Your task to perform on an android device: Go to Wikipedia Image 0: 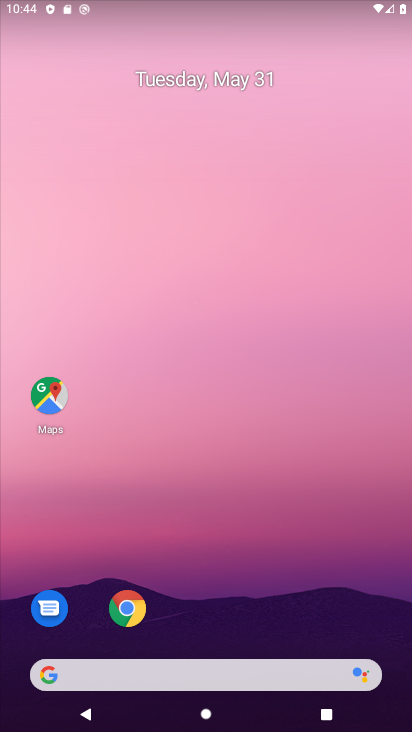
Step 0: drag from (289, 576) to (328, 65)
Your task to perform on an android device: Go to Wikipedia Image 1: 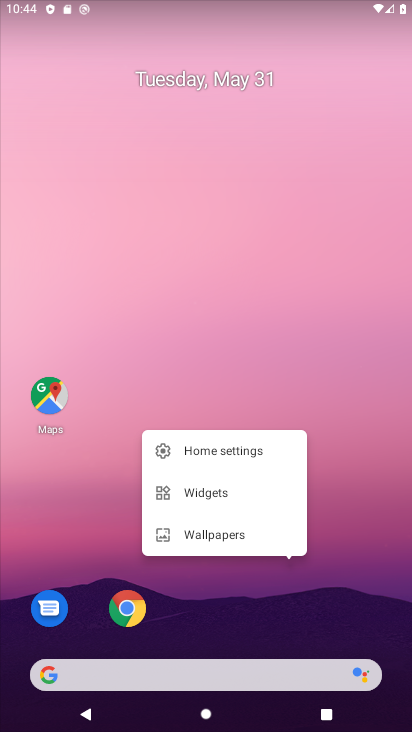
Step 1: click (285, 219)
Your task to perform on an android device: Go to Wikipedia Image 2: 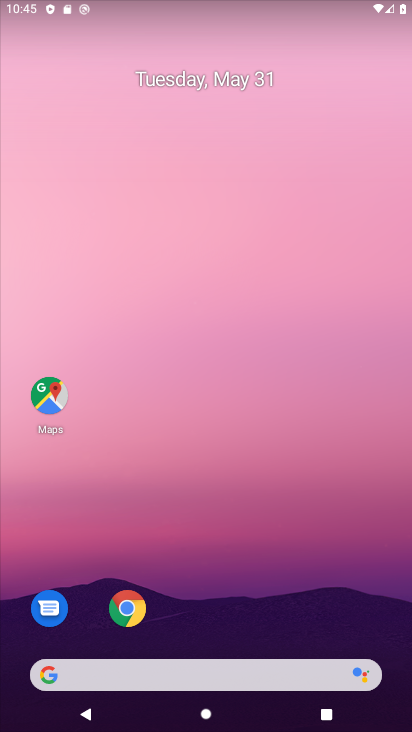
Step 2: drag from (393, 643) to (351, 489)
Your task to perform on an android device: Go to Wikipedia Image 3: 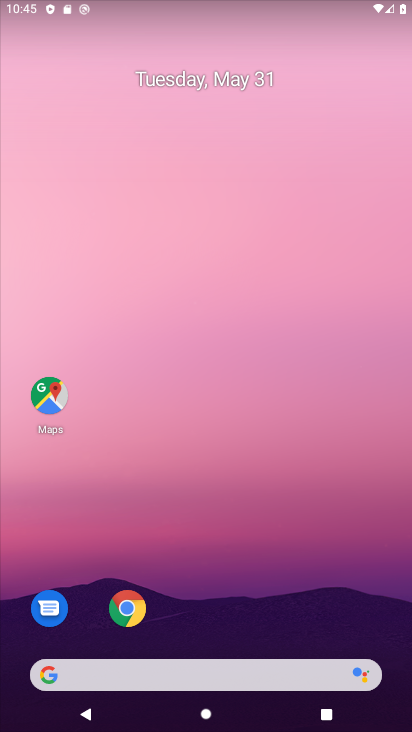
Step 3: drag from (388, 645) to (322, 3)
Your task to perform on an android device: Go to Wikipedia Image 4: 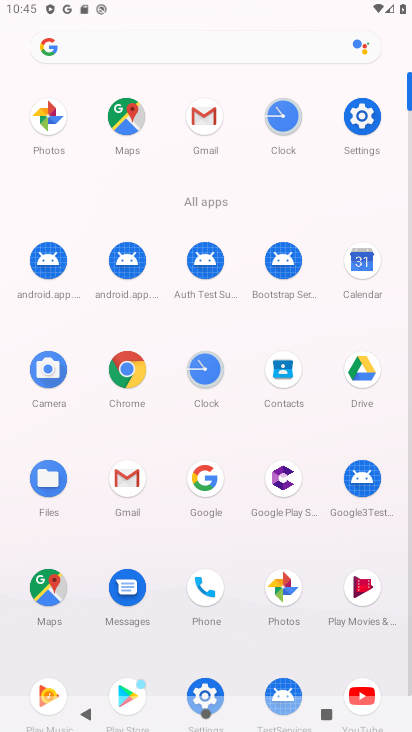
Step 4: click (410, 608)
Your task to perform on an android device: Go to Wikipedia Image 5: 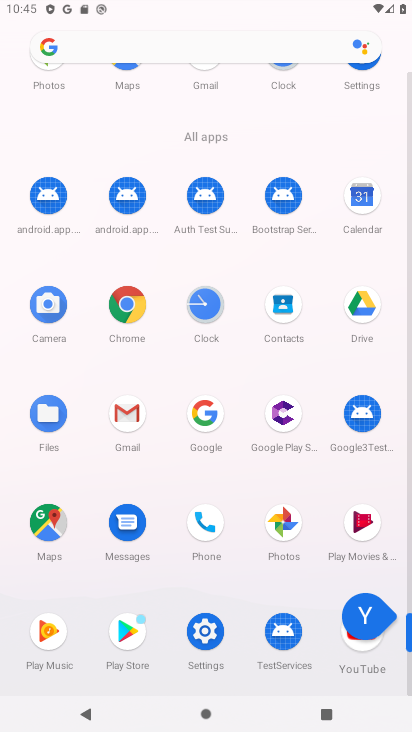
Step 5: drag from (407, 614) to (315, 656)
Your task to perform on an android device: Go to Wikipedia Image 6: 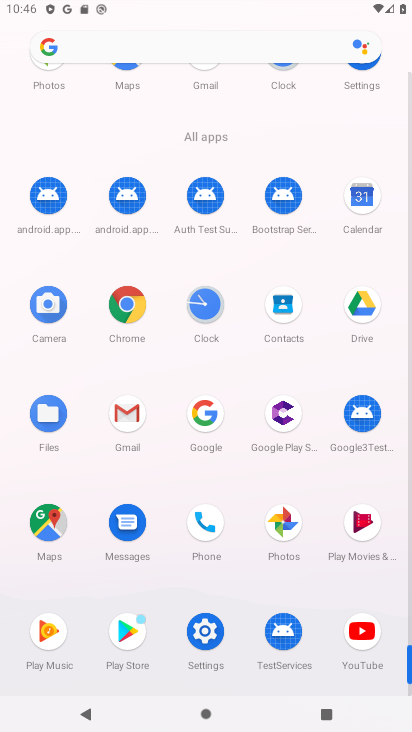
Step 6: click (141, 292)
Your task to perform on an android device: Go to Wikipedia Image 7: 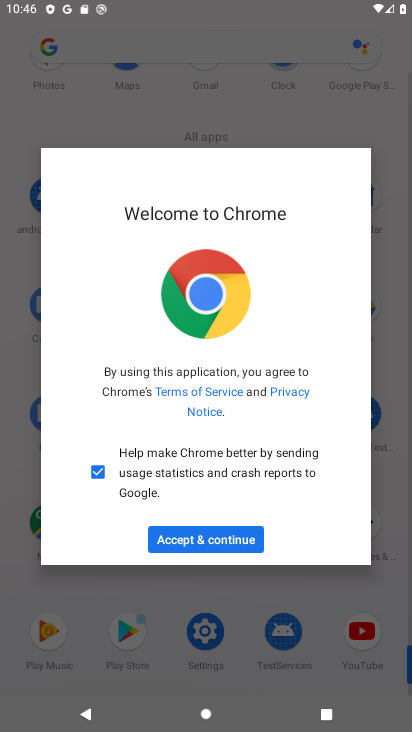
Step 7: click (177, 527)
Your task to perform on an android device: Go to Wikipedia Image 8: 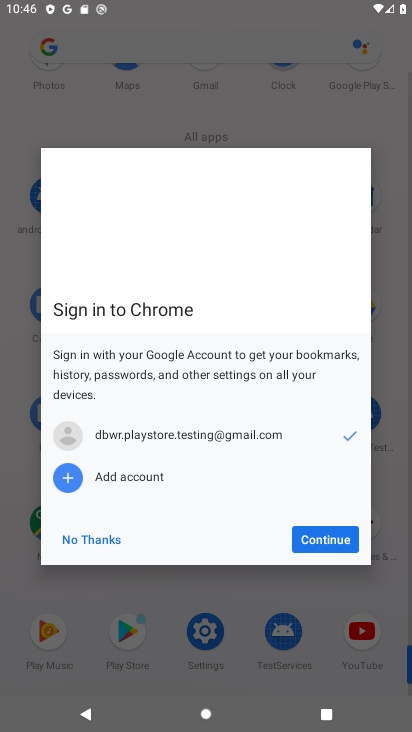
Step 8: click (339, 549)
Your task to perform on an android device: Go to Wikipedia Image 9: 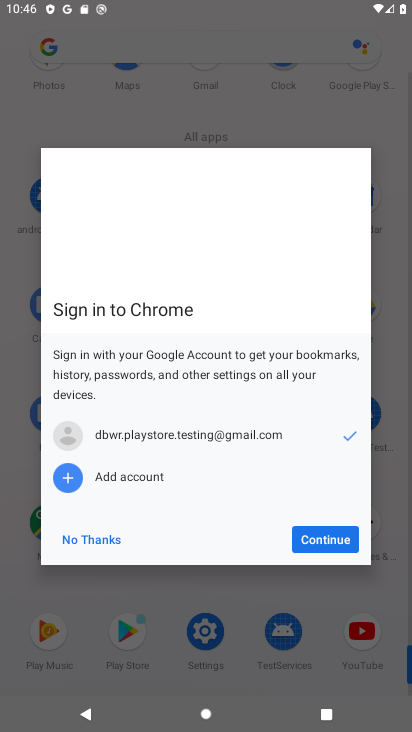
Step 9: click (339, 549)
Your task to perform on an android device: Go to Wikipedia Image 10: 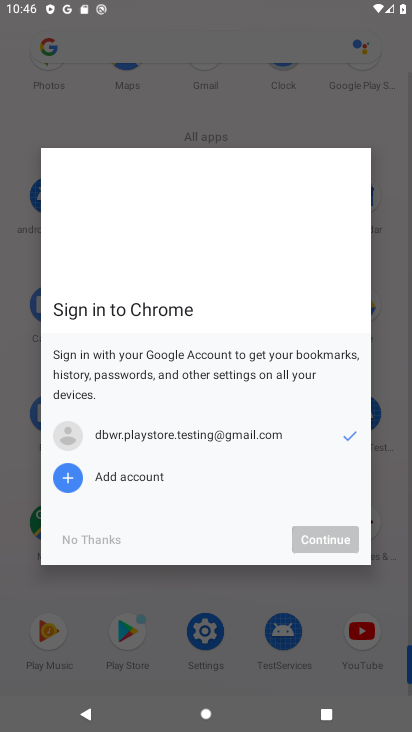
Step 10: click (339, 549)
Your task to perform on an android device: Go to Wikipedia Image 11: 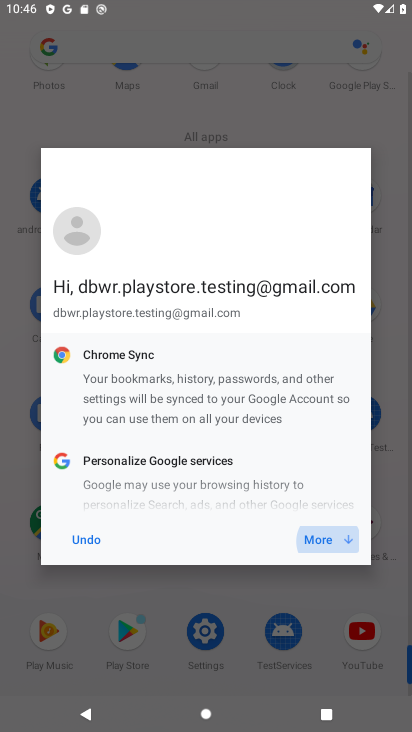
Step 11: click (339, 549)
Your task to perform on an android device: Go to Wikipedia Image 12: 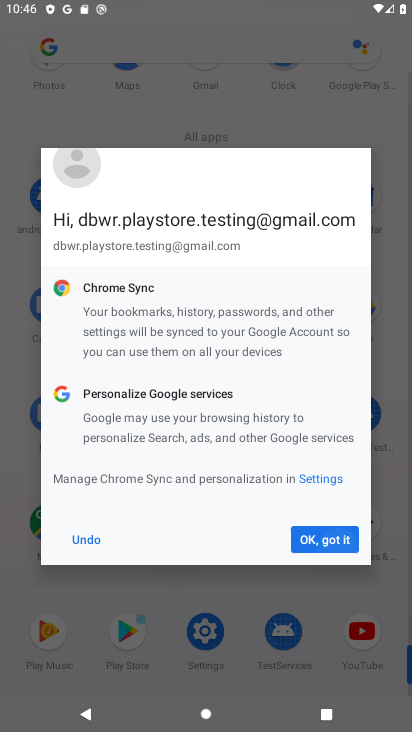
Step 12: click (339, 549)
Your task to perform on an android device: Go to Wikipedia Image 13: 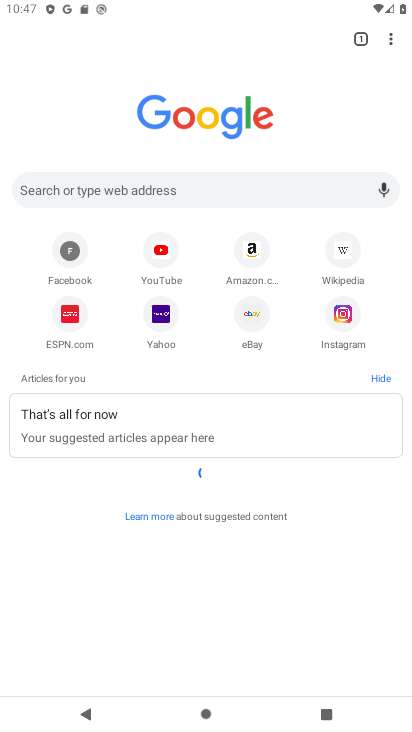
Step 13: click (208, 183)
Your task to perform on an android device: Go to Wikipedia Image 14: 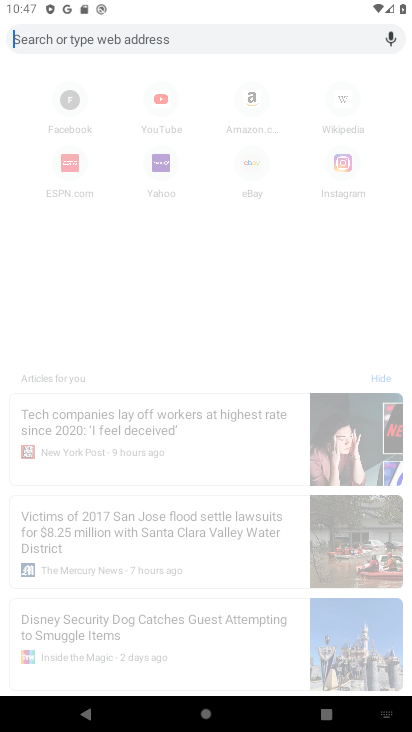
Step 14: type "Wikipedia"
Your task to perform on an android device: Go to Wikipedia Image 15: 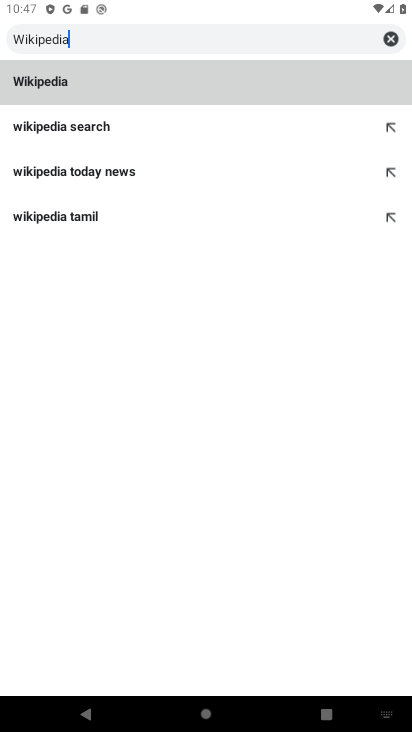
Step 15: click (171, 67)
Your task to perform on an android device: Go to Wikipedia Image 16: 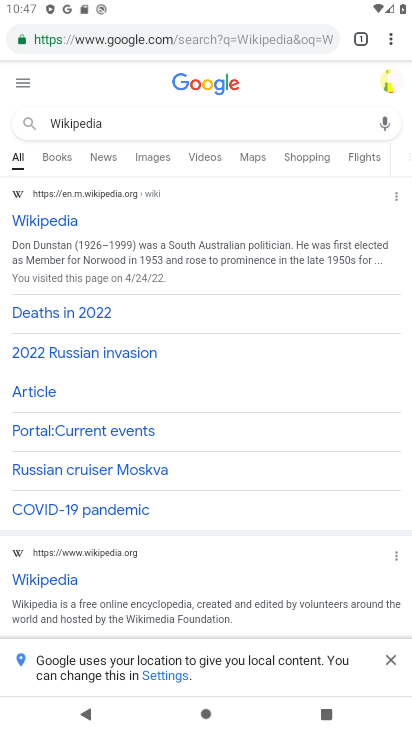
Step 16: click (52, 213)
Your task to perform on an android device: Go to Wikipedia Image 17: 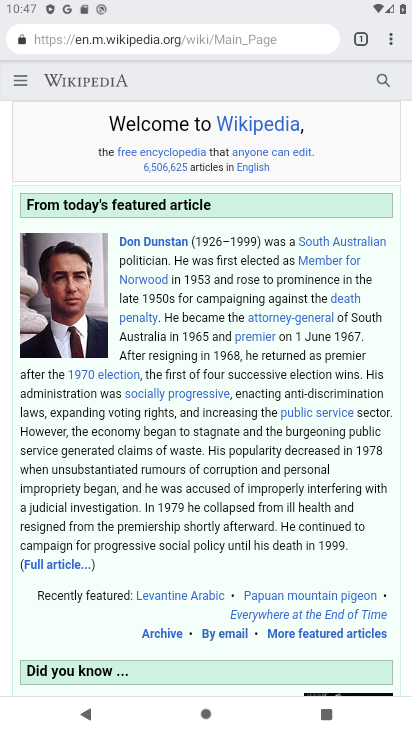
Step 17: task complete